Your task to perform on an android device: turn pop-ups on in chrome Image 0: 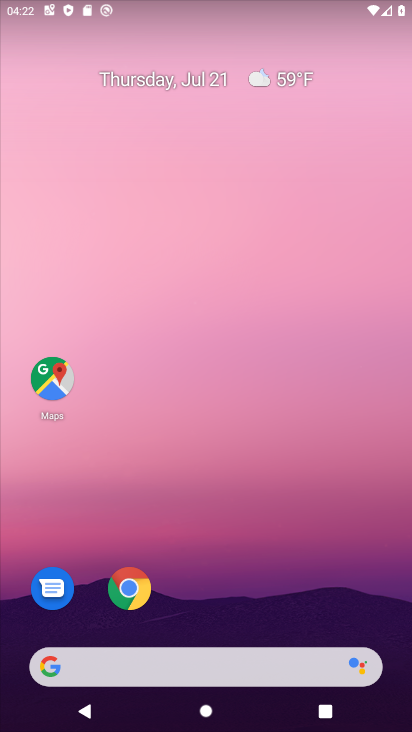
Step 0: click (135, 598)
Your task to perform on an android device: turn pop-ups on in chrome Image 1: 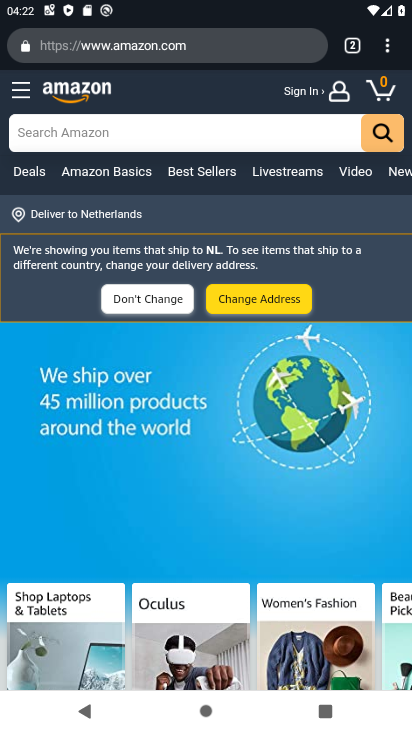
Step 1: click (389, 49)
Your task to perform on an android device: turn pop-ups on in chrome Image 2: 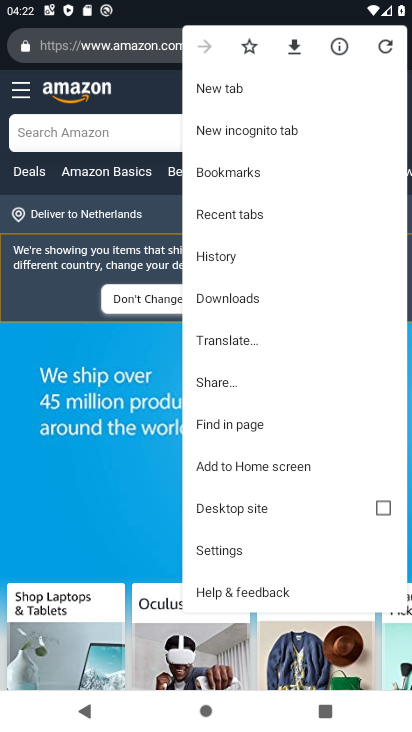
Step 2: click (228, 548)
Your task to perform on an android device: turn pop-ups on in chrome Image 3: 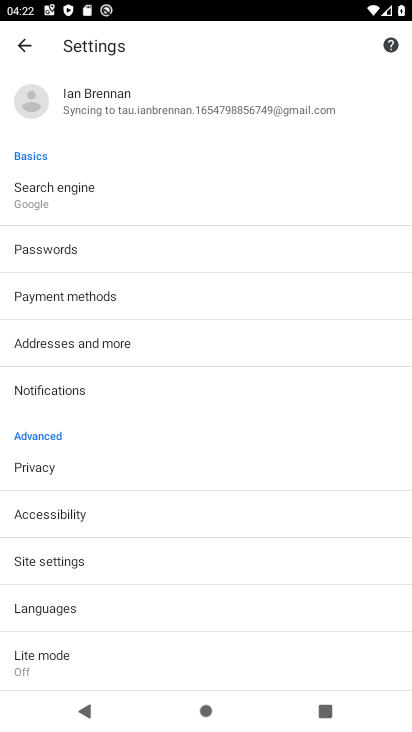
Step 3: click (46, 561)
Your task to perform on an android device: turn pop-ups on in chrome Image 4: 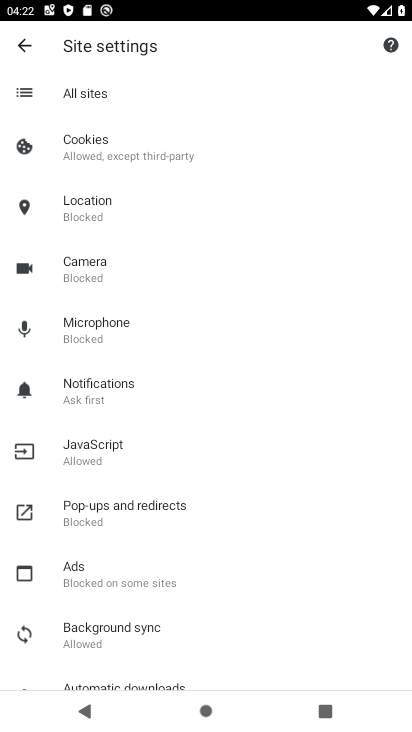
Step 4: click (96, 521)
Your task to perform on an android device: turn pop-ups on in chrome Image 5: 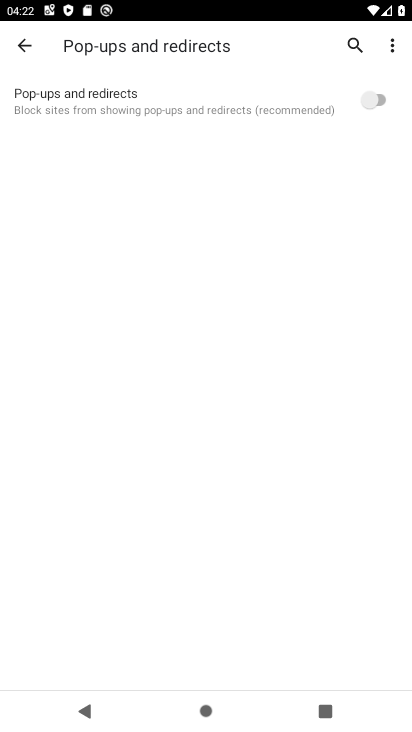
Step 5: click (394, 102)
Your task to perform on an android device: turn pop-ups on in chrome Image 6: 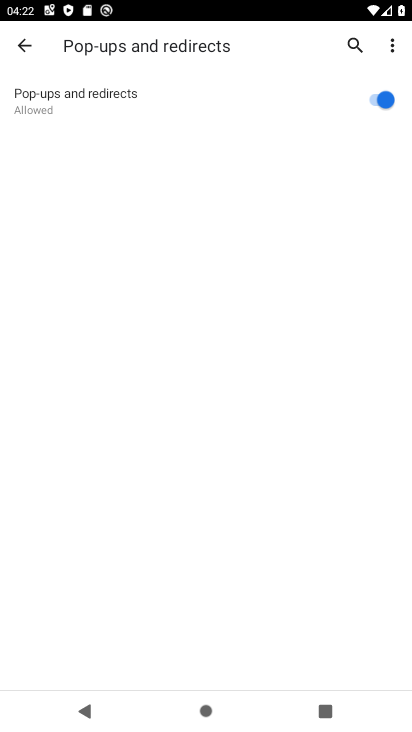
Step 6: task complete